Your task to perform on an android device: Open my contact list Image 0: 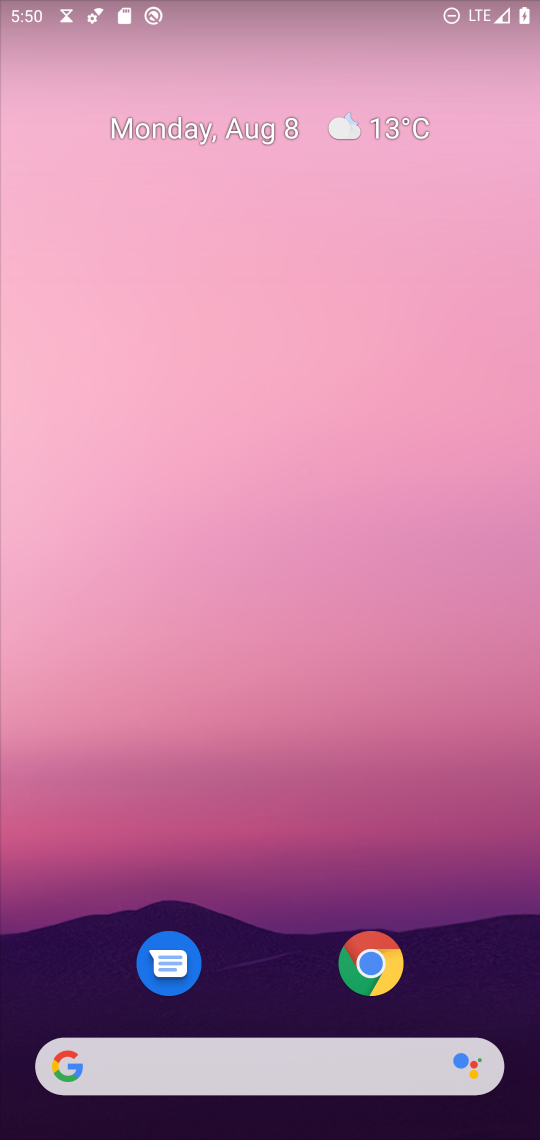
Step 0: press home button
Your task to perform on an android device: Open my contact list Image 1: 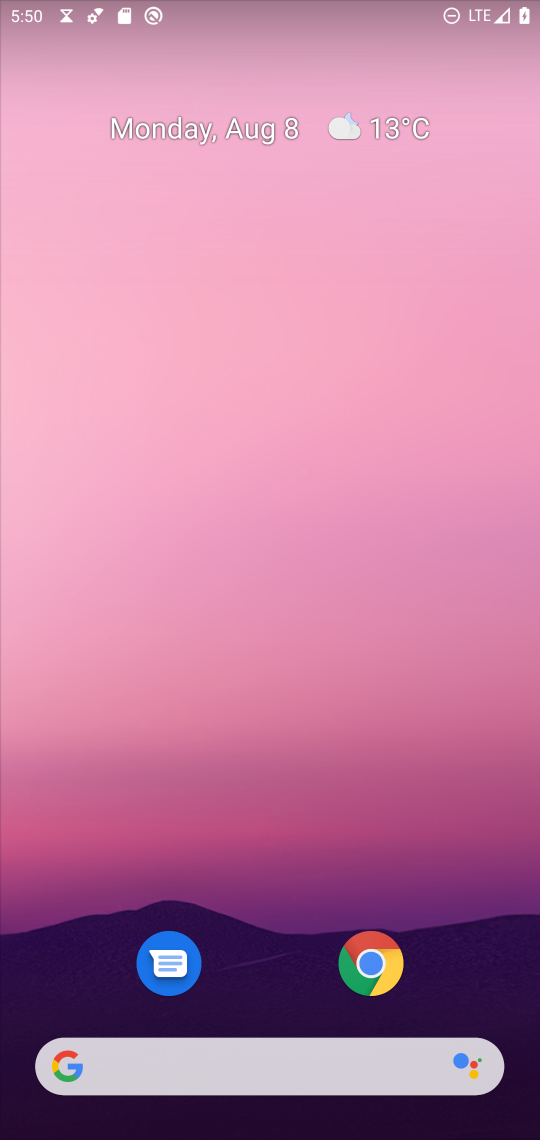
Step 1: drag from (276, 977) to (272, 425)
Your task to perform on an android device: Open my contact list Image 2: 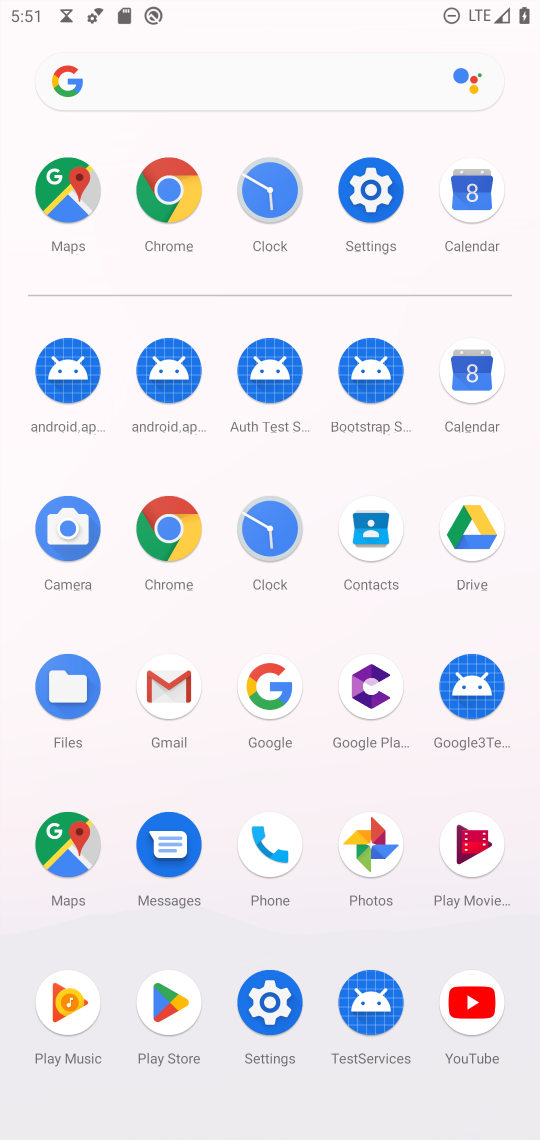
Step 2: click (372, 533)
Your task to perform on an android device: Open my contact list Image 3: 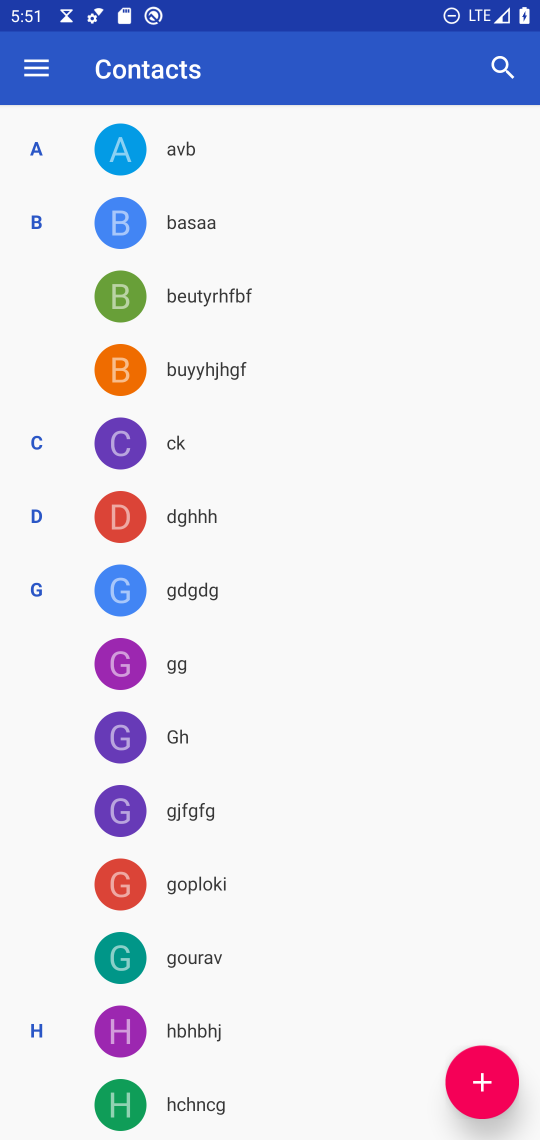
Step 3: task complete